Your task to perform on an android device: toggle data saver in the chrome app Image 0: 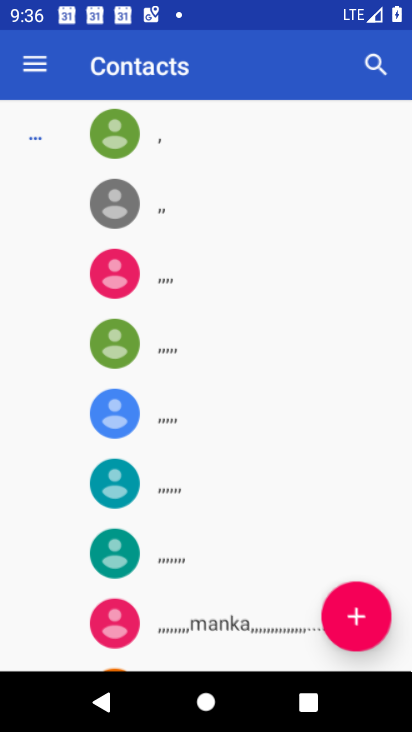
Step 0: drag from (223, 584) to (281, 29)
Your task to perform on an android device: toggle data saver in the chrome app Image 1: 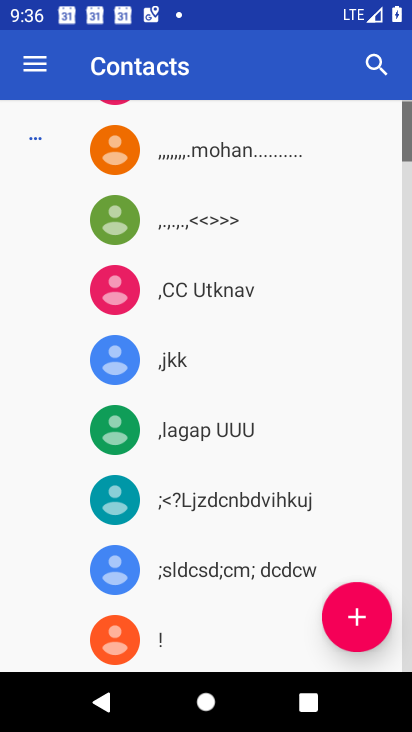
Step 1: press home button
Your task to perform on an android device: toggle data saver in the chrome app Image 2: 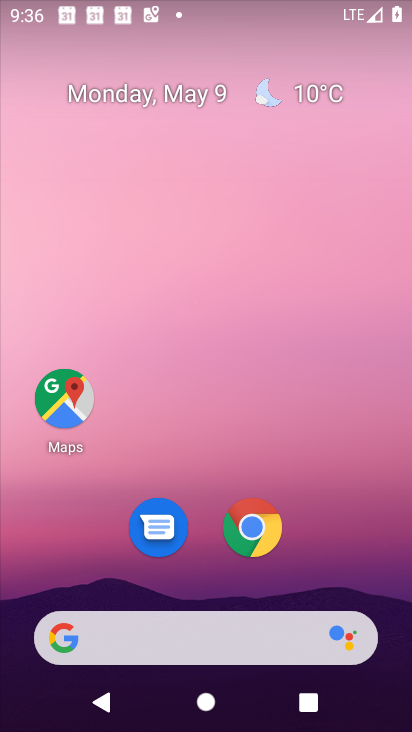
Step 2: drag from (206, 612) to (290, 42)
Your task to perform on an android device: toggle data saver in the chrome app Image 3: 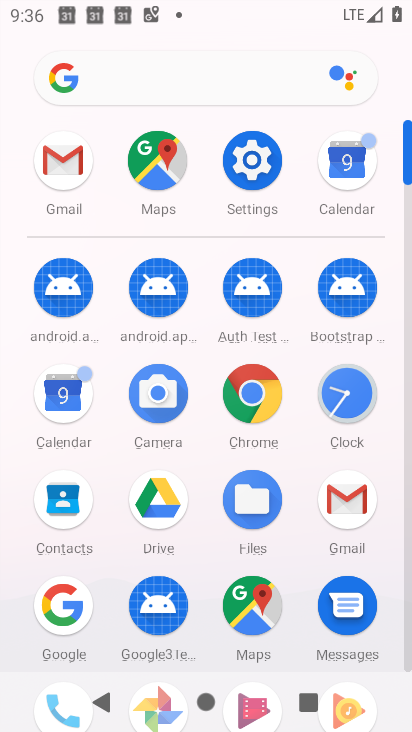
Step 3: click (257, 422)
Your task to perform on an android device: toggle data saver in the chrome app Image 4: 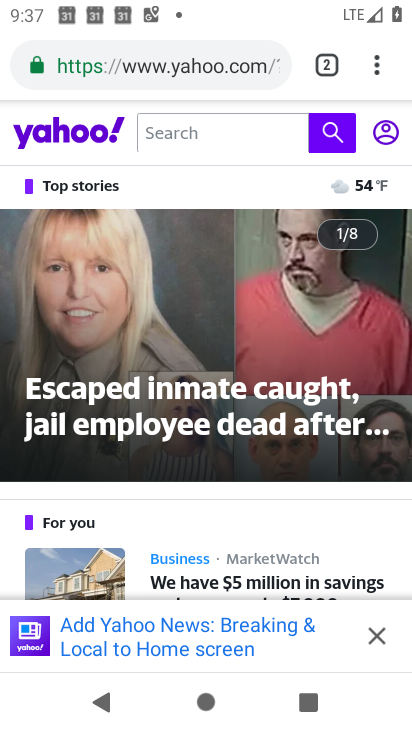
Step 4: click (374, 72)
Your task to perform on an android device: toggle data saver in the chrome app Image 5: 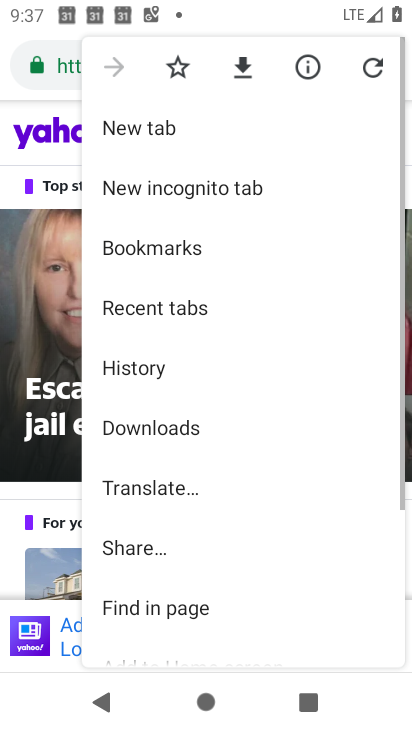
Step 5: drag from (157, 613) to (208, 252)
Your task to perform on an android device: toggle data saver in the chrome app Image 6: 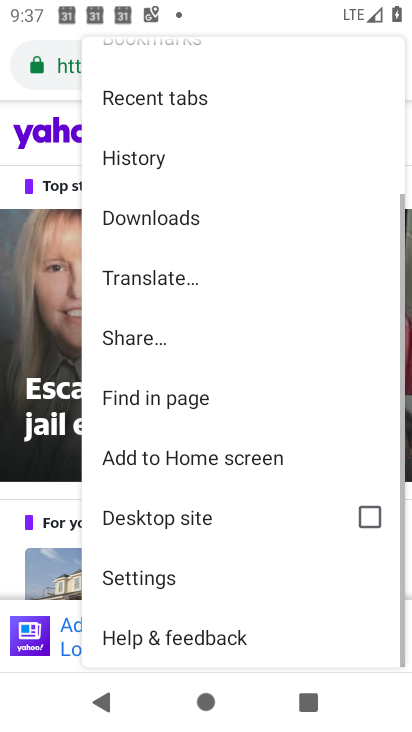
Step 6: click (149, 574)
Your task to perform on an android device: toggle data saver in the chrome app Image 7: 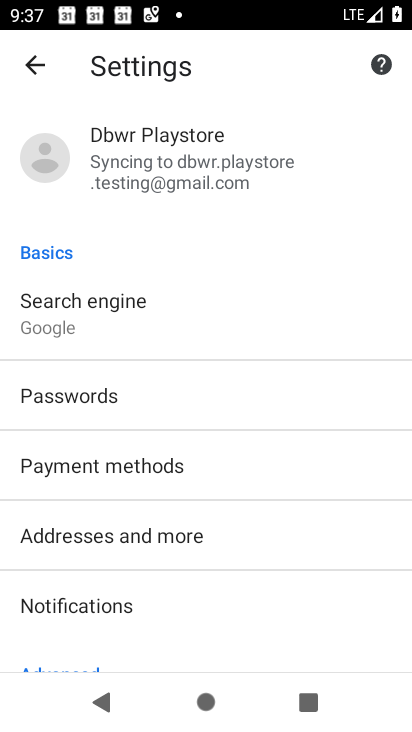
Step 7: drag from (141, 601) to (171, 409)
Your task to perform on an android device: toggle data saver in the chrome app Image 8: 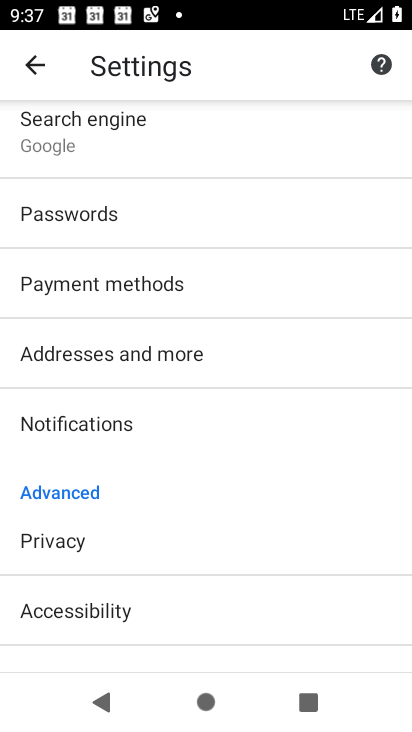
Step 8: drag from (136, 560) to (195, 256)
Your task to perform on an android device: toggle data saver in the chrome app Image 9: 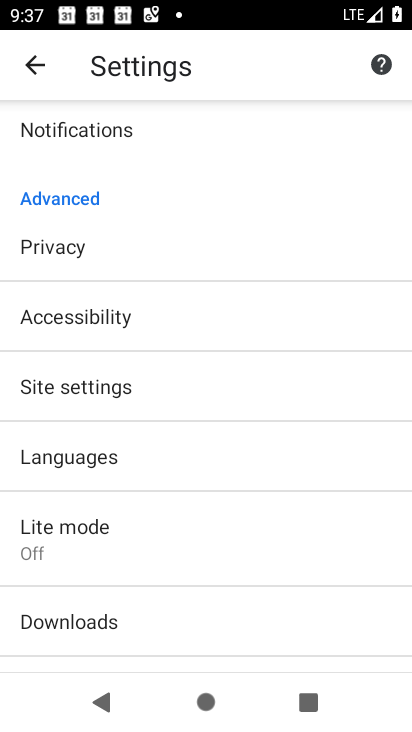
Step 9: click (107, 549)
Your task to perform on an android device: toggle data saver in the chrome app Image 10: 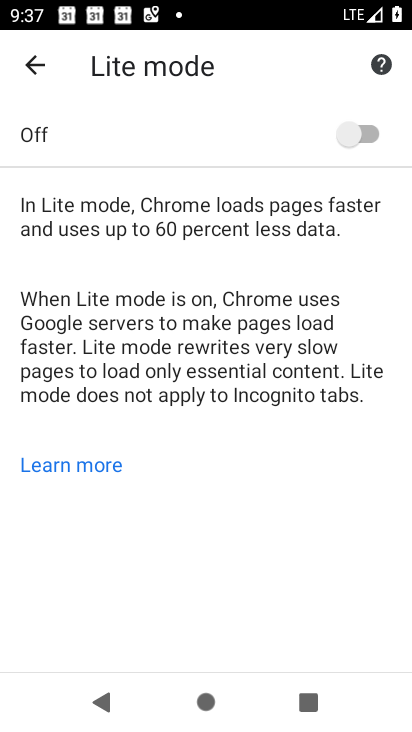
Step 10: click (348, 136)
Your task to perform on an android device: toggle data saver in the chrome app Image 11: 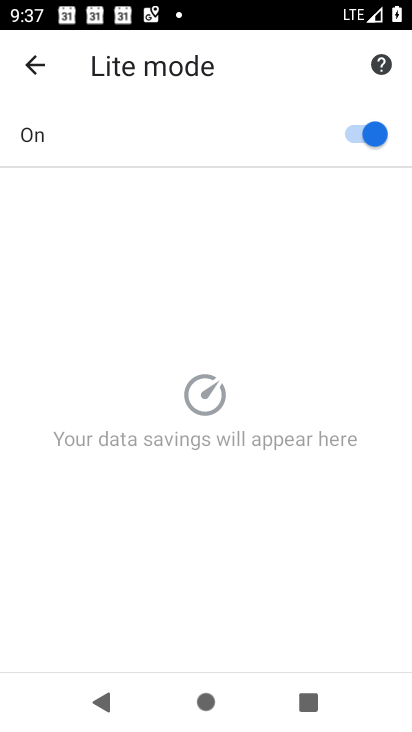
Step 11: task complete